Your task to perform on an android device: Add sony triple a to the cart on newegg Image 0: 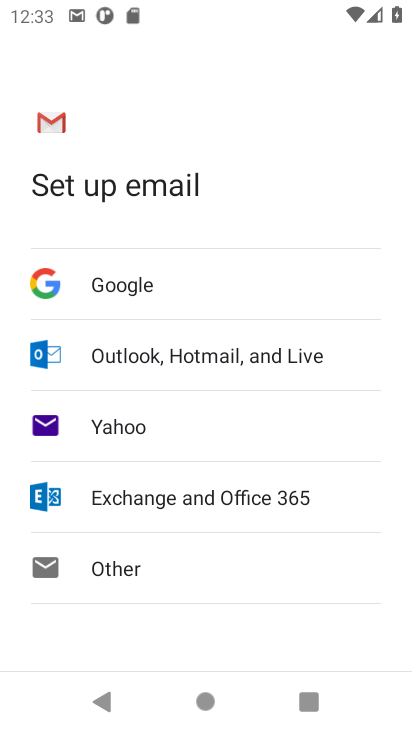
Step 0: press home button
Your task to perform on an android device: Add sony triple a to the cart on newegg Image 1: 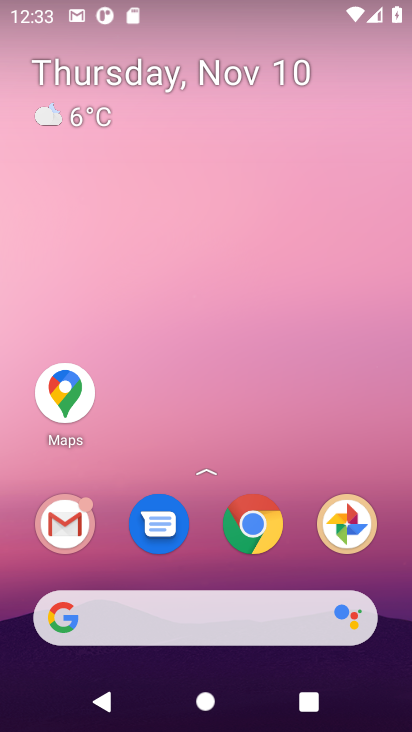
Step 1: click (245, 525)
Your task to perform on an android device: Add sony triple a to the cart on newegg Image 2: 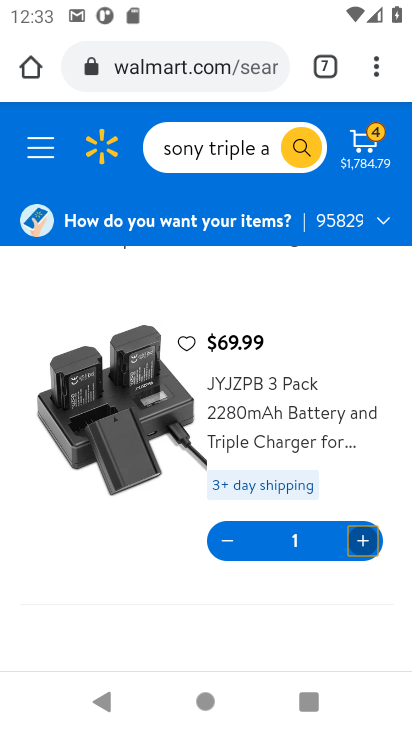
Step 2: click (328, 65)
Your task to perform on an android device: Add sony triple a to the cart on newegg Image 3: 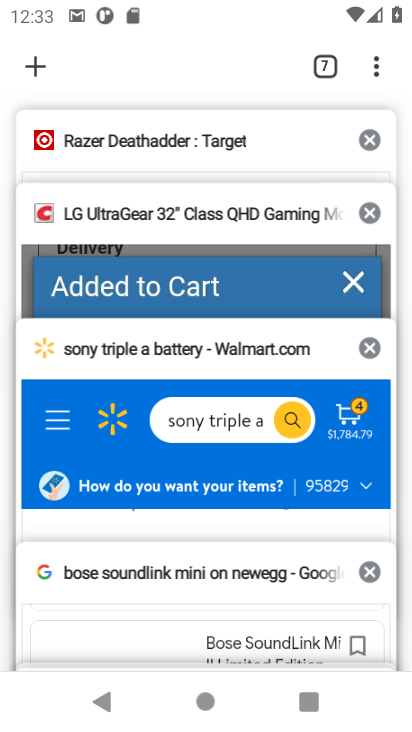
Step 3: drag from (299, 597) to (327, 498)
Your task to perform on an android device: Add sony triple a to the cart on newegg Image 4: 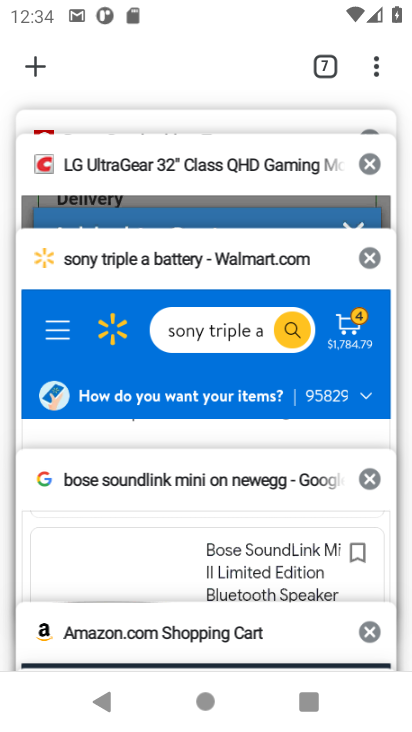
Step 4: drag from (190, 644) to (250, 320)
Your task to perform on an android device: Add sony triple a to the cart on newegg Image 5: 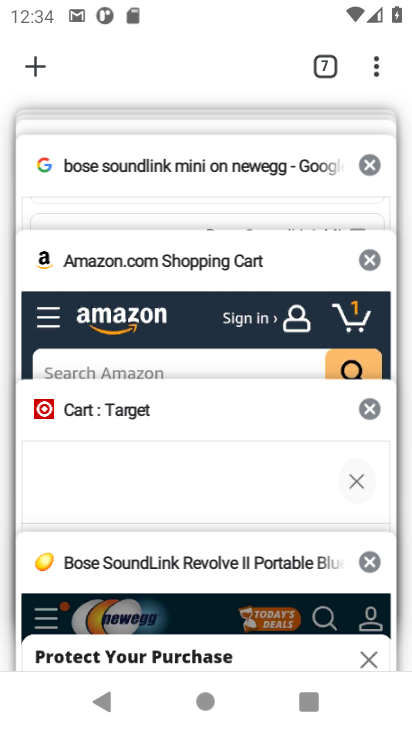
Step 5: click (370, 164)
Your task to perform on an android device: Add sony triple a to the cart on newegg Image 6: 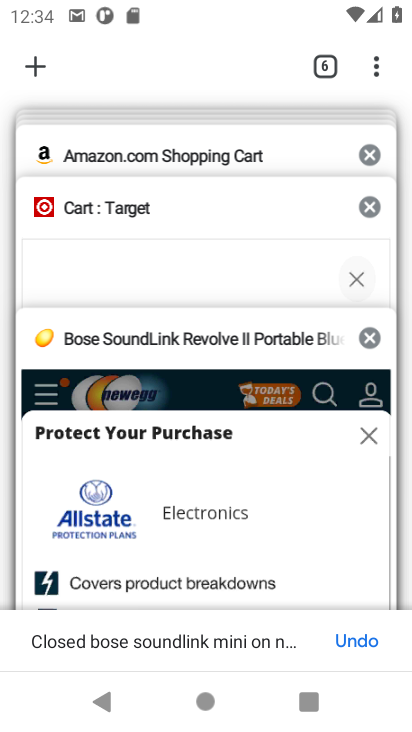
Step 6: click (236, 348)
Your task to perform on an android device: Add sony triple a to the cart on newegg Image 7: 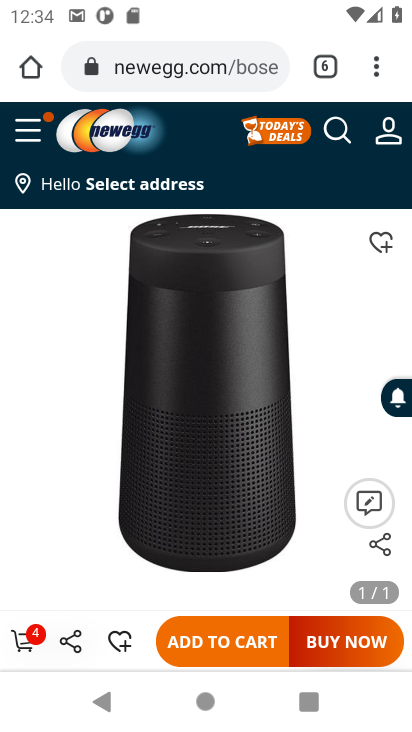
Step 7: click (341, 133)
Your task to perform on an android device: Add sony triple a to the cart on newegg Image 8: 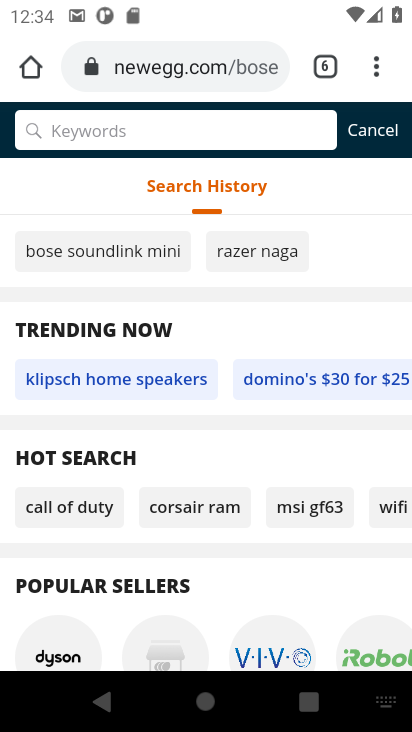
Step 8: type "sony triple a"
Your task to perform on an android device: Add sony triple a to the cart on newegg Image 9: 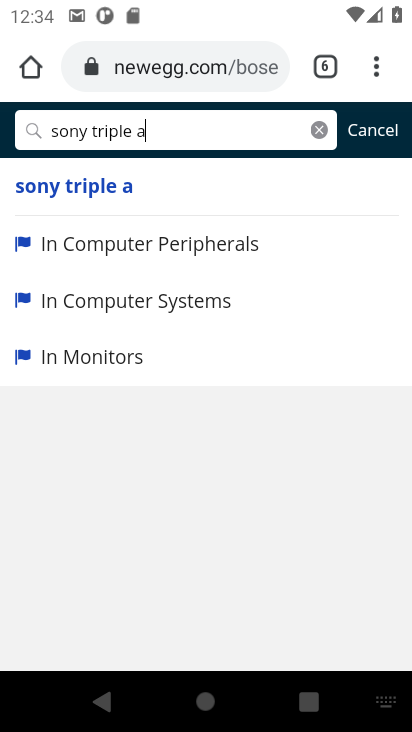
Step 9: click (72, 183)
Your task to perform on an android device: Add sony triple a to the cart on newegg Image 10: 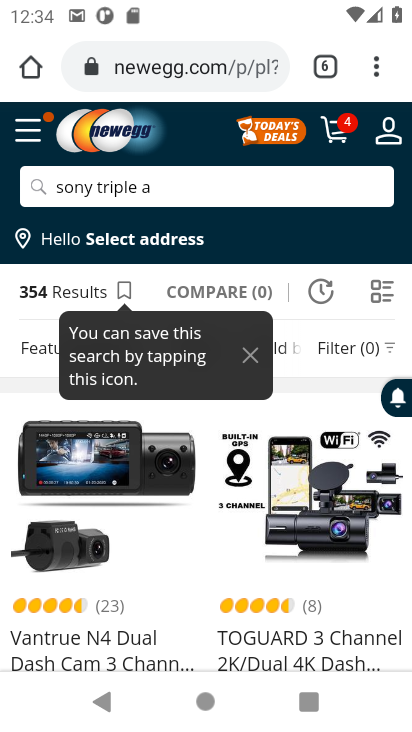
Step 10: task complete